Your task to perform on an android device: Is it going to rain this weekend? Image 0: 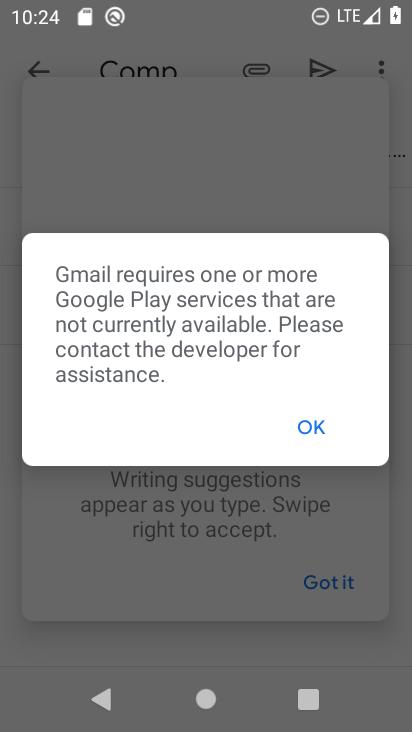
Step 0: press home button
Your task to perform on an android device: Is it going to rain this weekend? Image 1: 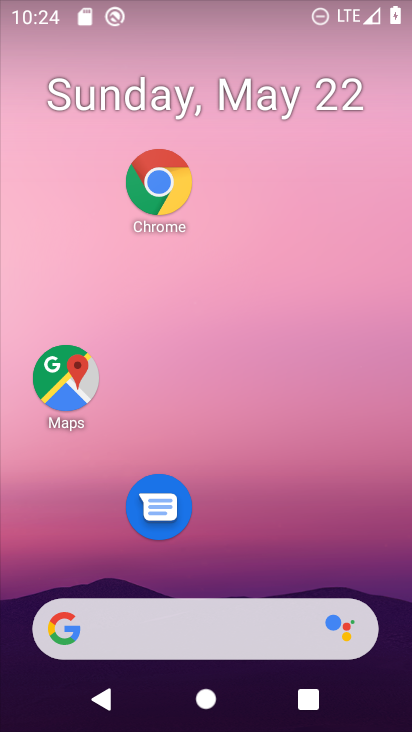
Step 1: click (153, 621)
Your task to perform on an android device: Is it going to rain this weekend? Image 2: 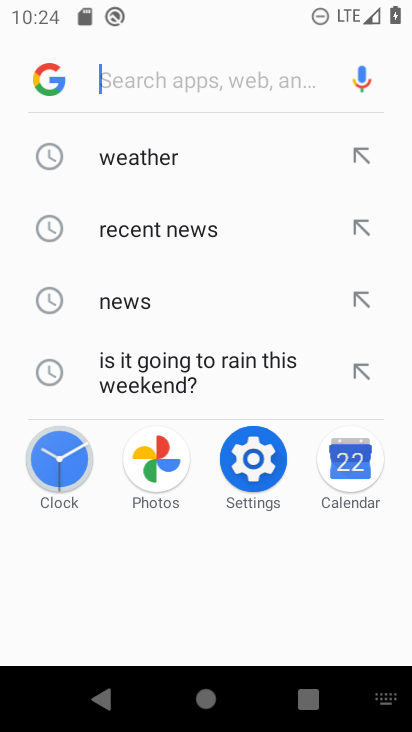
Step 2: click (211, 375)
Your task to perform on an android device: Is it going to rain this weekend? Image 3: 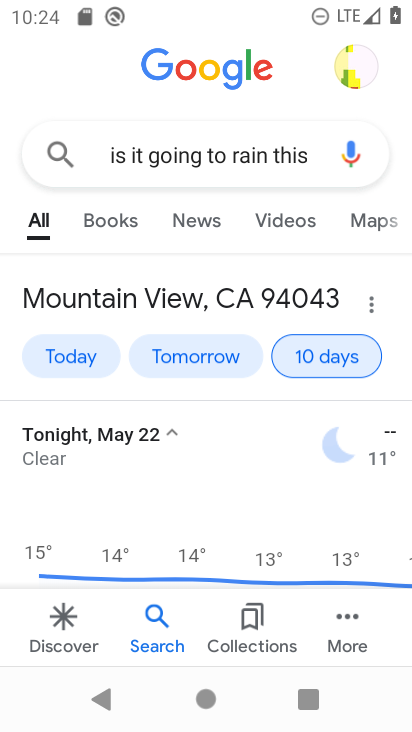
Step 3: task complete